Your task to perform on an android device: What's on my calendar tomorrow? Image 0: 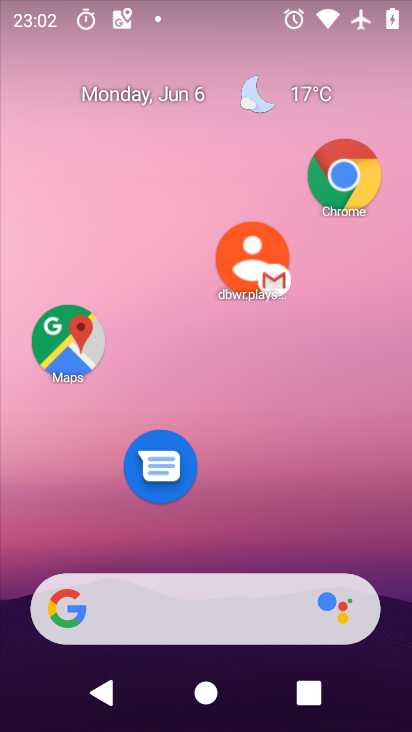
Step 0: drag from (213, 531) to (177, 78)
Your task to perform on an android device: What's on my calendar tomorrow? Image 1: 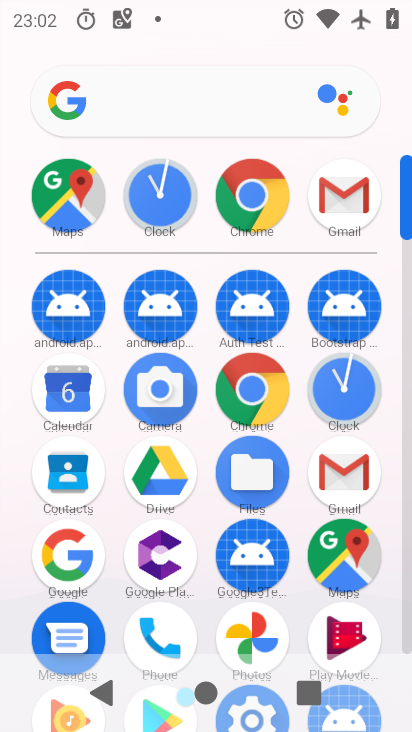
Step 1: click (62, 408)
Your task to perform on an android device: What's on my calendar tomorrow? Image 2: 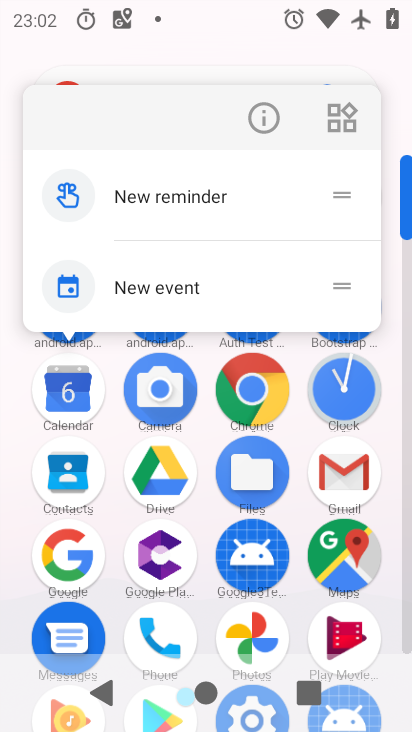
Step 2: click (260, 105)
Your task to perform on an android device: What's on my calendar tomorrow? Image 3: 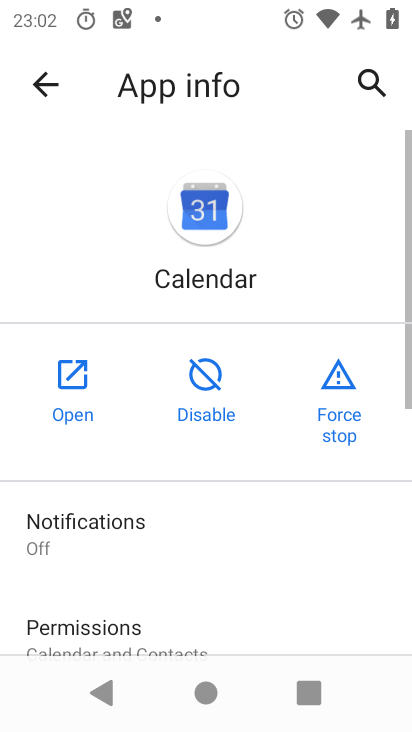
Step 3: click (74, 385)
Your task to perform on an android device: What's on my calendar tomorrow? Image 4: 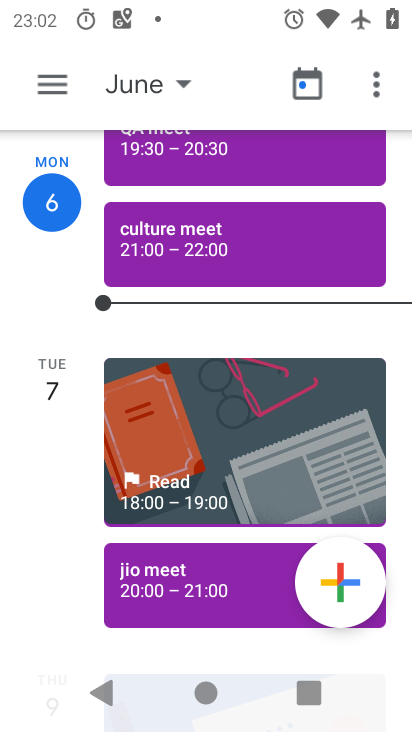
Step 4: click (178, 78)
Your task to perform on an android device: What's on my calendar tomorrow? Image 5: 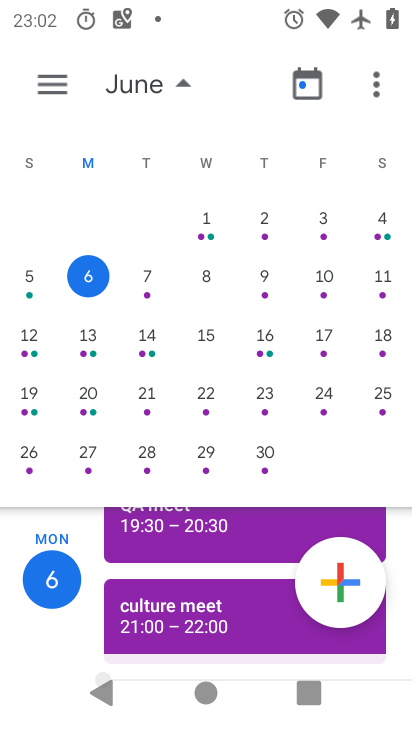
Step 5: click (153, 286)
Your task to perform on an android device: What's on my calendar tomorrow? Image 6: 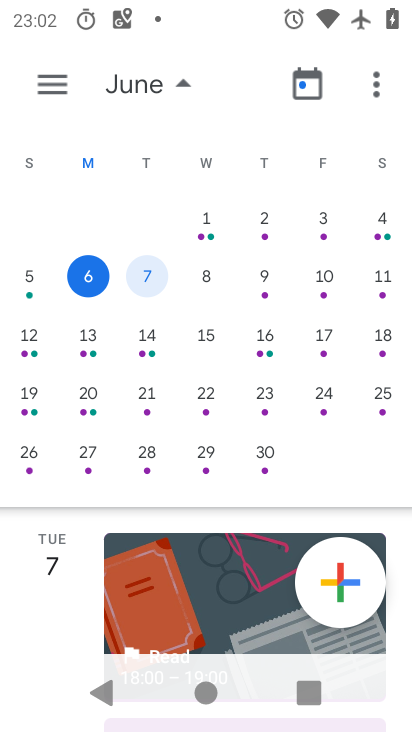
Step 6: task complete